Your task to perform on an android device: What's on my calendar today? Image 0: 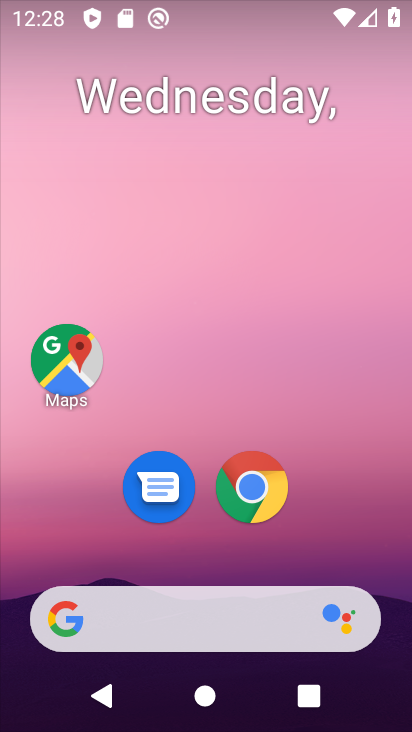
Step 0: drag from (270, 558) to (289, 7)
Your task to perform on an android device: What's on my calendar today? Image 1: 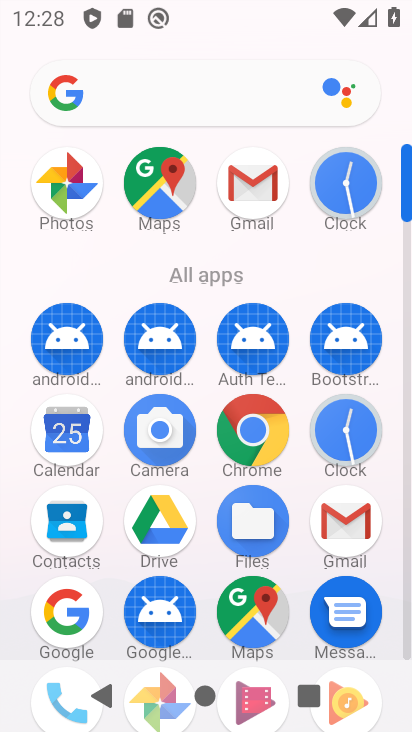
Step 1: click (71, 433)
Your task to perform on an android device: What's on my calendar today? Image 2: 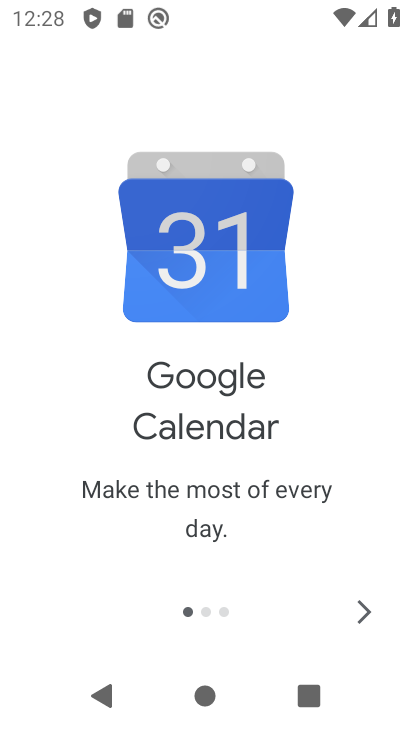
Step 2: click (361, 612)
Your task to perform on an android device: What's on my calendar today? Image 3: 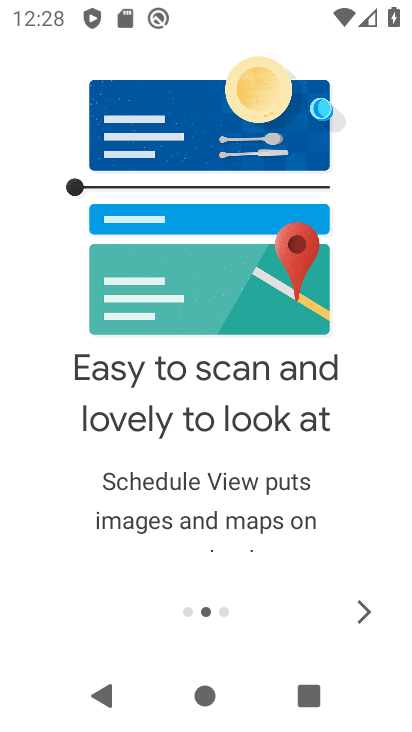
Step 3: click (361, 612)
Your task to perform on an android device: What's on my calendar today? Image 4: 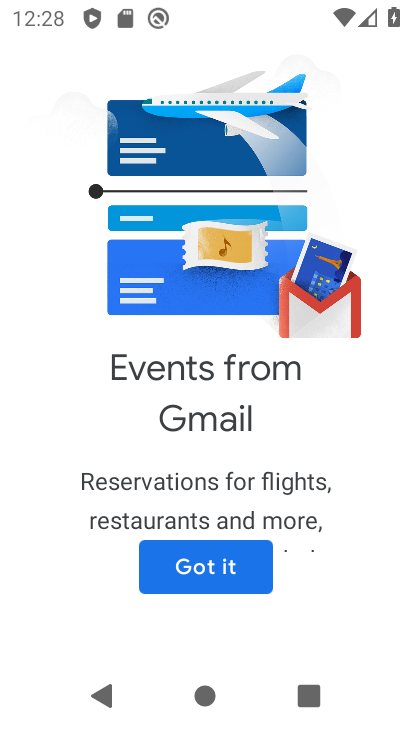
Step 4: click (208, 559)
Your task to perform on an android device: What's on my calendar today? Image 5: 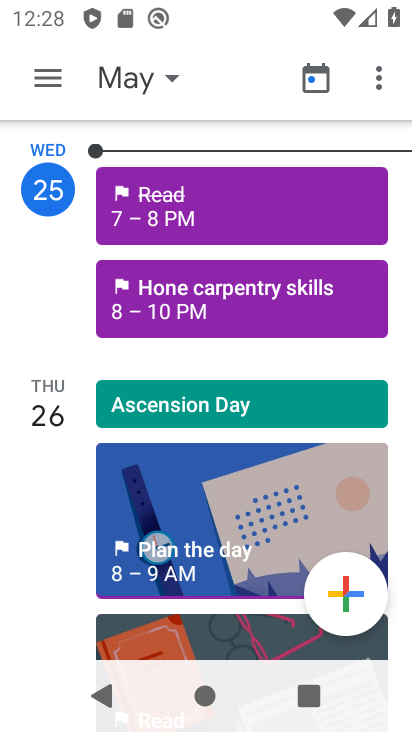
Step 5: task complete